Your task to perform on an android device: Open Google Image 0: 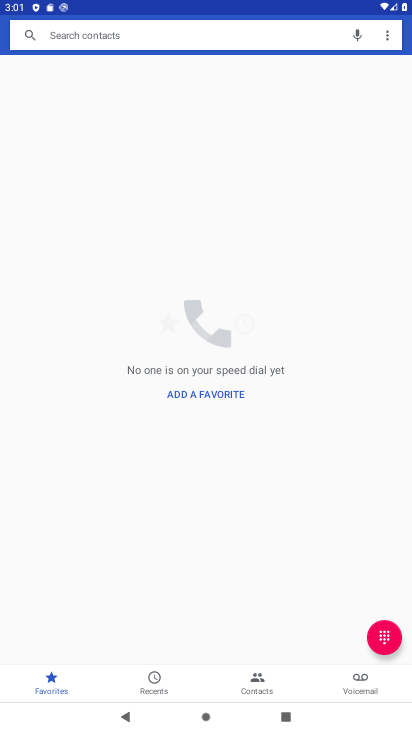
Step 0: press home button
Your task to perform on an android device: Open Google Image 1: 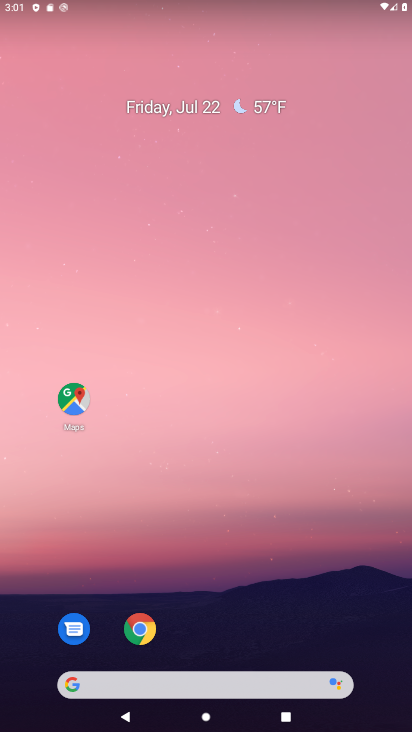
Step 1: drag from (244, 615) to (204, 83)
Your task to perform on an android device: Open Google Image 2: 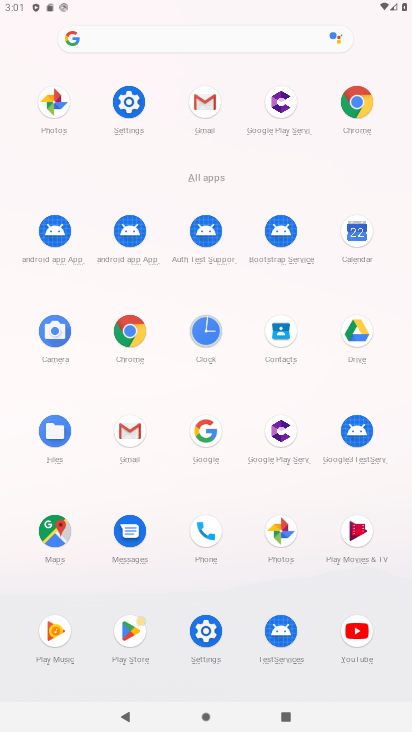
Step 2: click (210, 433)
Your task to perform on an android device: Open Google Image 3: 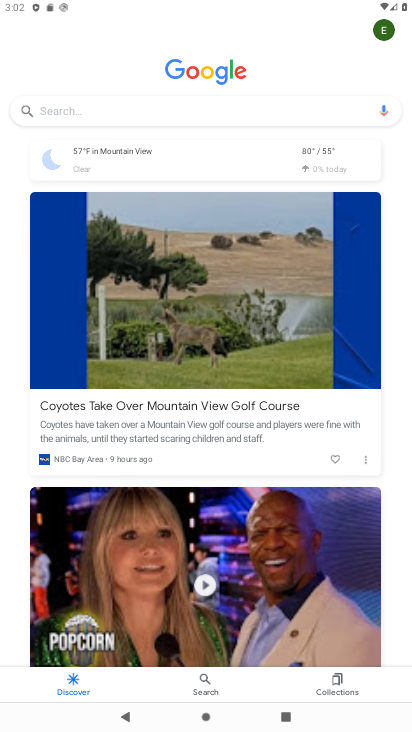
Step 3: task complete